Your task to perform on an android device: allow notifications from all sites in the chrome app Image 0: 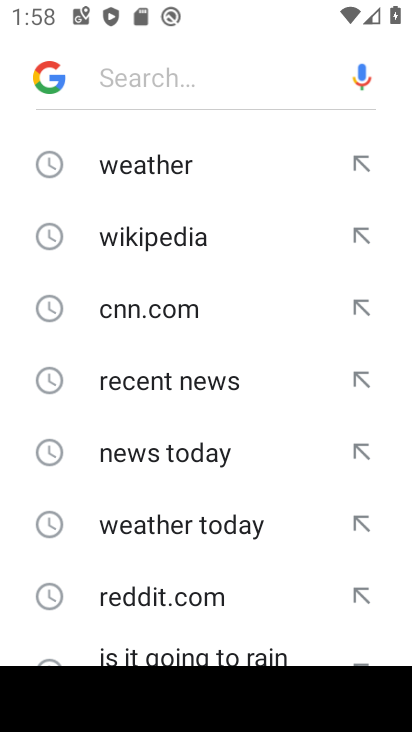
Step 0: press home button
Your task to perform on an android device: allow notifications from all sites in the chrome app Image 1: 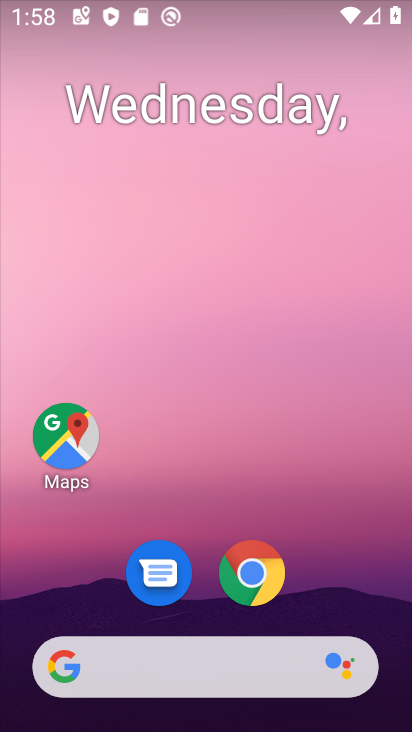
Step 1: click (249, 578)
Your task to perform on an android device: allow notifications from all sites in the chrome app Image 2: 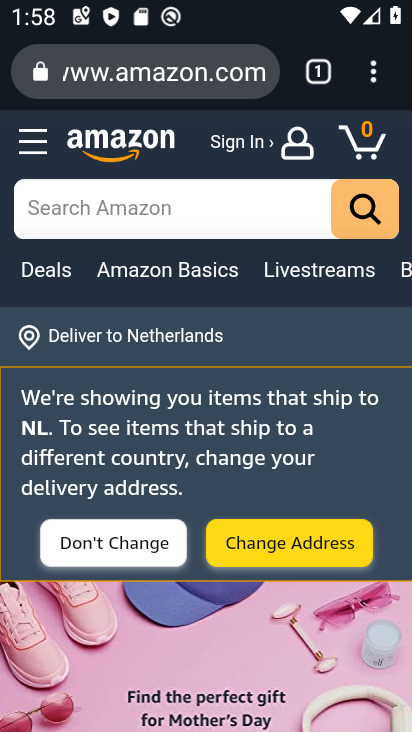
Step 2: click (366, 74)
Your task to perform on an android device: allow notifications from all sites in the chrome app Image 3: 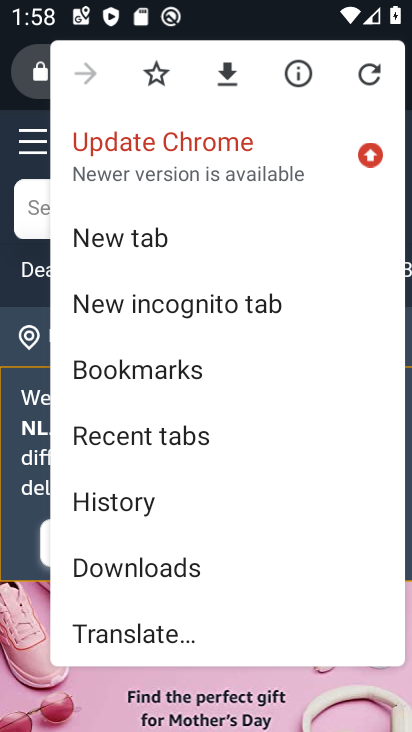
Step 3: drag from (238, 561) to (213, 71)
Your task to perform on an android device: allow notifications from all sites in the chrome app Image 4: 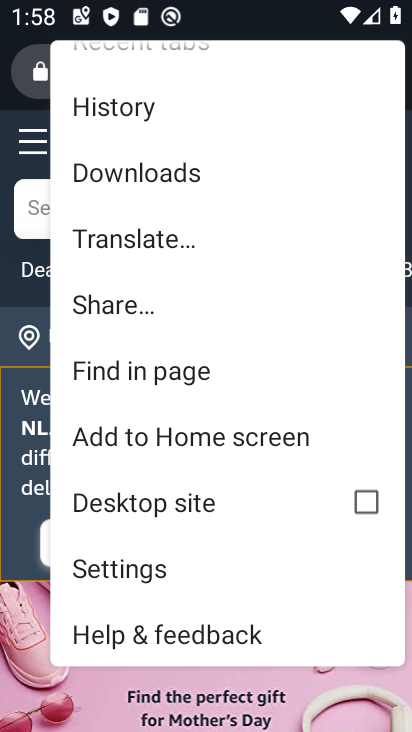
Step 4: drag from (229, 501) to (206, 246)
Your task to perform on an android device: allow notifications from all sites in the chrome app Image 5: 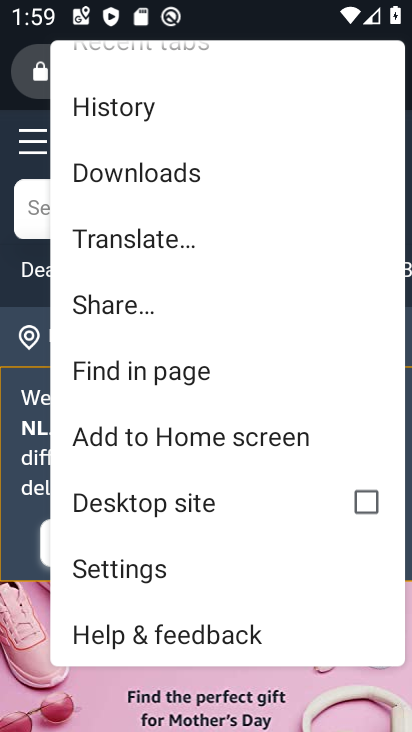
Step 5: click (168, 569)
Your task to perform on an android device: allow notifications from all sites in the chrome app Image 6: 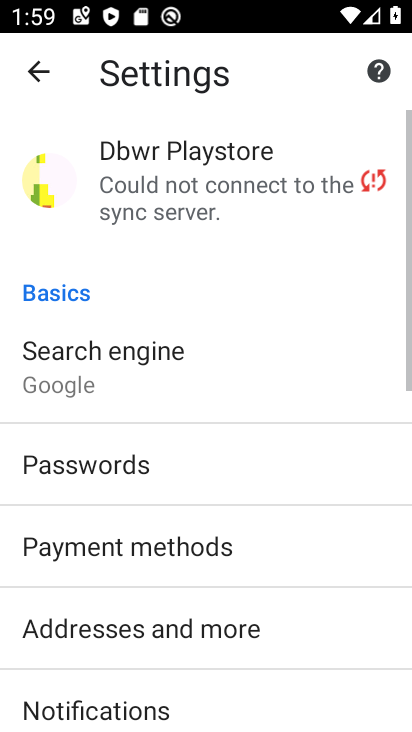
Step 6: drag from (242, 566) to (224, 187)
Your task to perform on an android device: allow notifications from all sites in the chrome app Image 7: 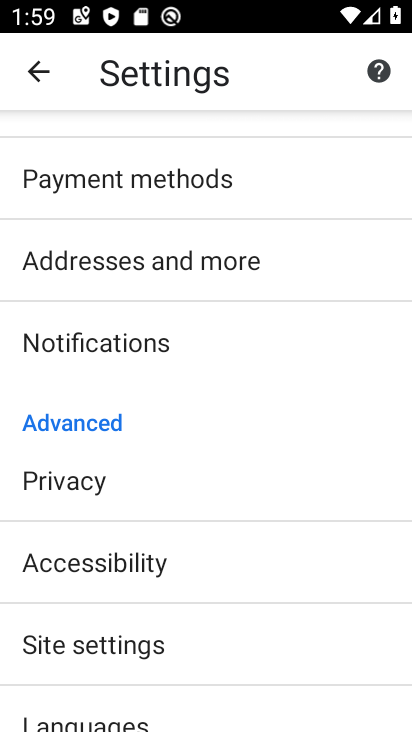
Step 7: drag from (193, 598) to (183, 412)
Your task to perform on an android device: allow notifications from all sites in the chrome app Image 8: 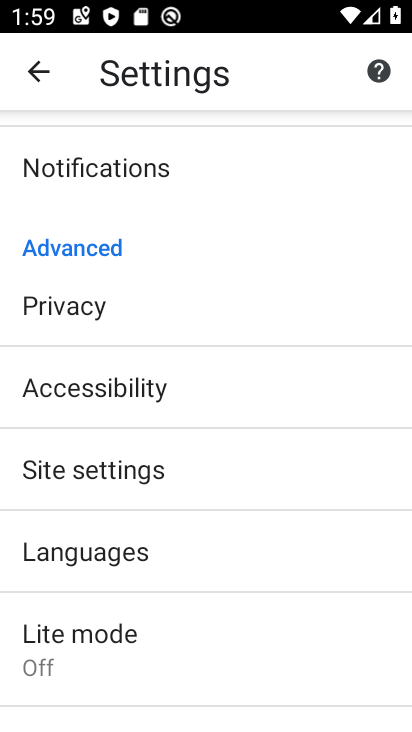
Step 8: click (113, 459)
Your task to perform on an android device: allow notifications from all sites in the chrome app Image 9: 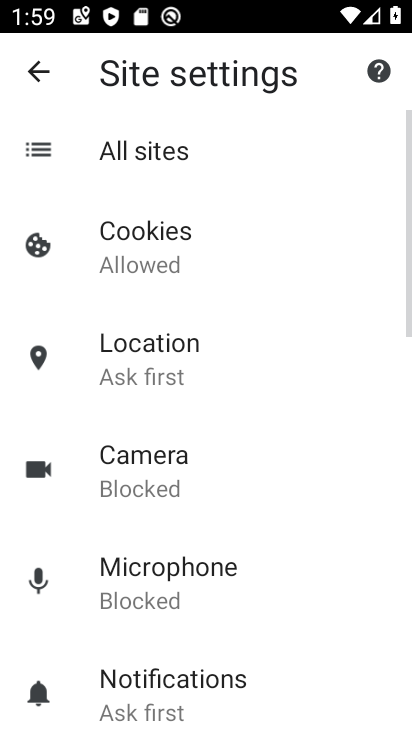
Step 9: drag from (256, 562) to (227, 234)
Your task to perform on an android device: allow notifications from all sites in the chrome app Image 10: 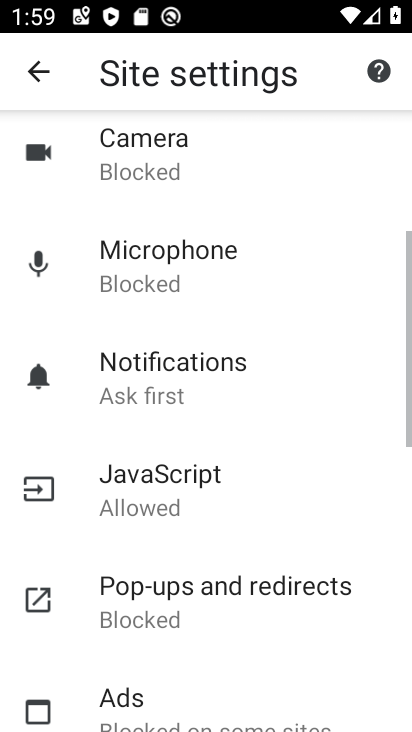
Step 10: drag from (199, 454) to (193, 183)
Your task to perform on an android device: allow notifications from all sites in the chrome app Image 11: 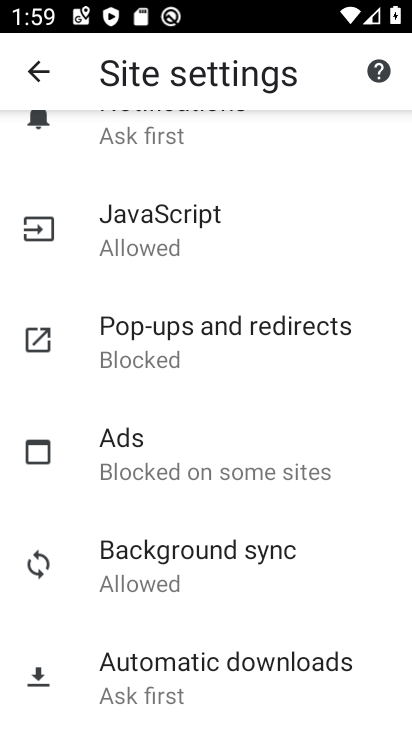
Step 11: click (209, 460)
Your task to perform on an android device: allow notifications from all sites in the chrome app Image 12: 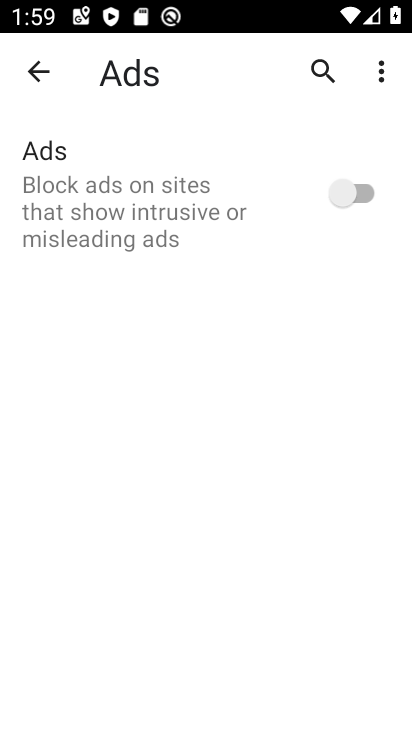
Step 12: click (356, 180)
Your task to perform on an android device: allow notifications from all sites in the chrome app Image 13: 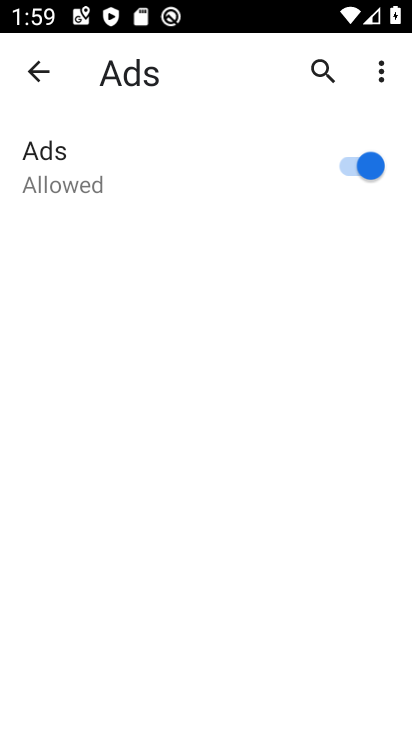
Step 13: task complete